Your task to perform on an android device: snooze an email in the gmail app Image 0: 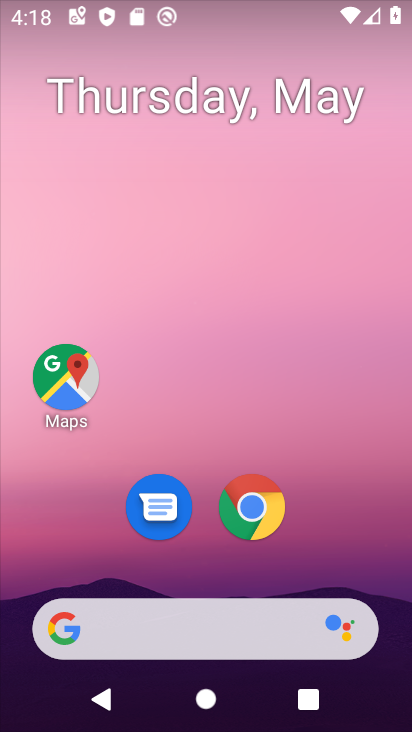
Step 0: drag from (321, 585) to (407, 124)
Your task to perform on an android device: snooze an email in the gmail app Image 1: 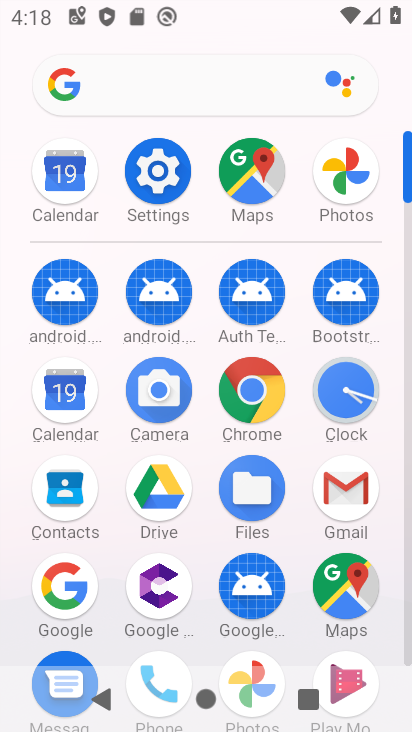
Step 1: click (334, 478)
Your task to perform on an android device: snooze an email in the gmail app Image 2: 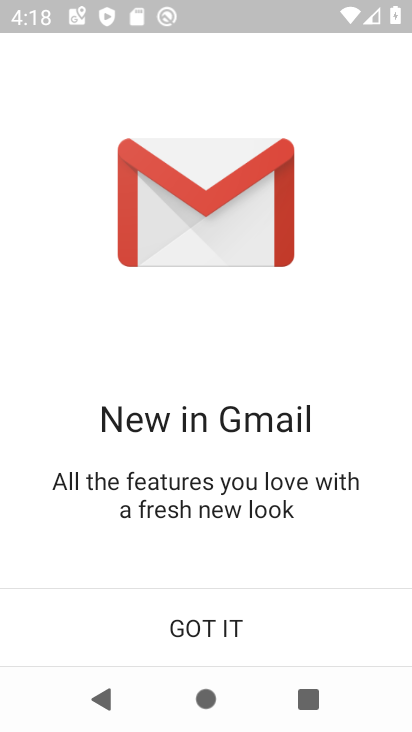
Step 2: click (203, 619)
Your task to perform on an android device: snooze an email in the gmail app Image 3: 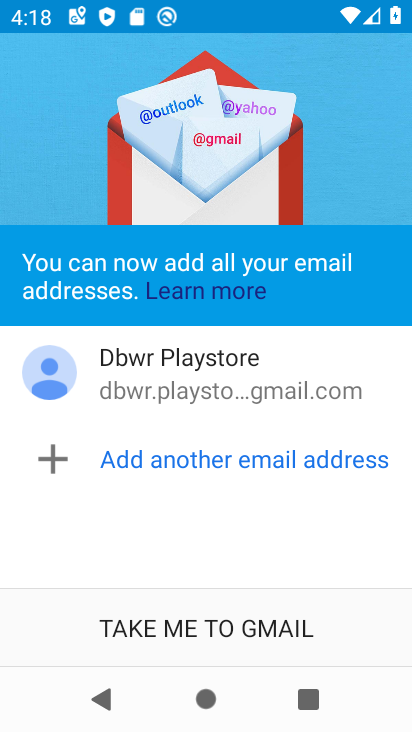
Step 3: click (202, 611)
Your task to perform on an android device: snooze an email in the gmail app Image 4: 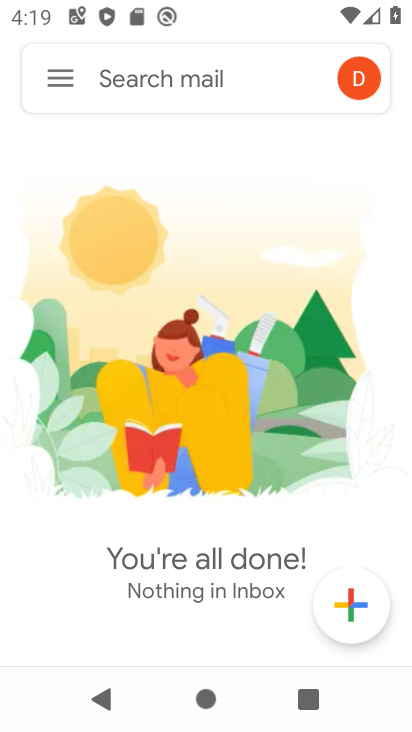
Step 4: click (69, 77)
Your task to perform on an android device: snooze an email in the gmail app Image 5: 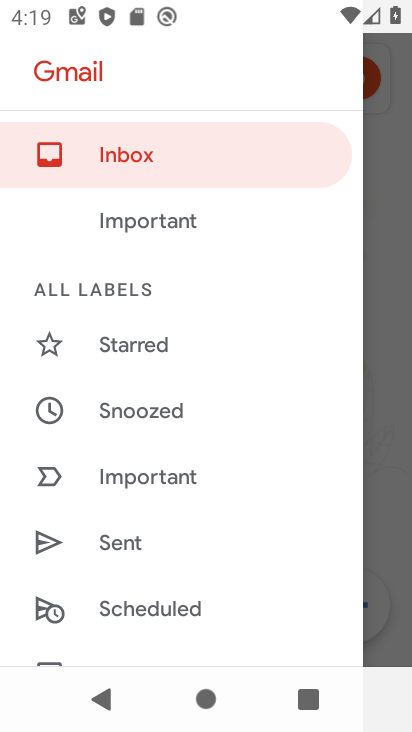
Step 5: drag from (164, 514) to (214, 136)
Your task to perform on an android device: snooze an email in the gmail app Image 6: 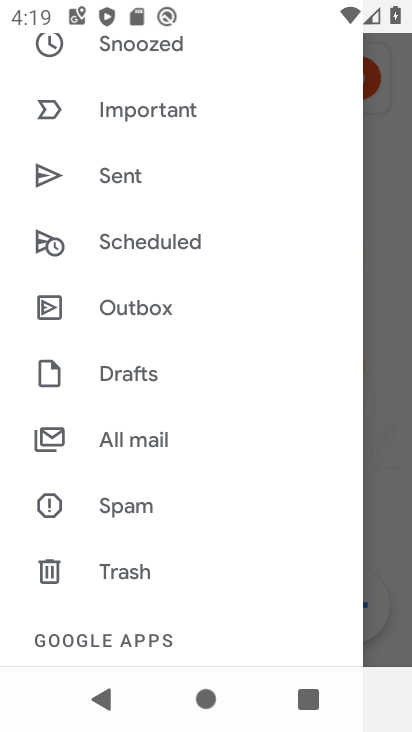
Step 6: click (121, 446)
Your task to perform on an android device: snooze an email in the gmail app Image 7: 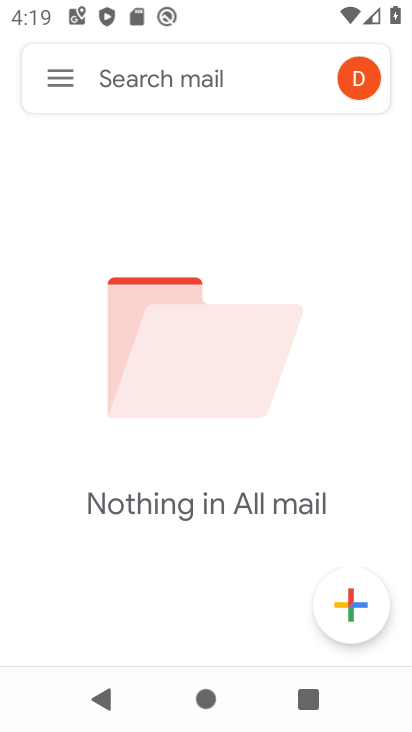
Step 7: task complete